Your task to perform on an android device: What's the weather going to be this weekend? Image 0: 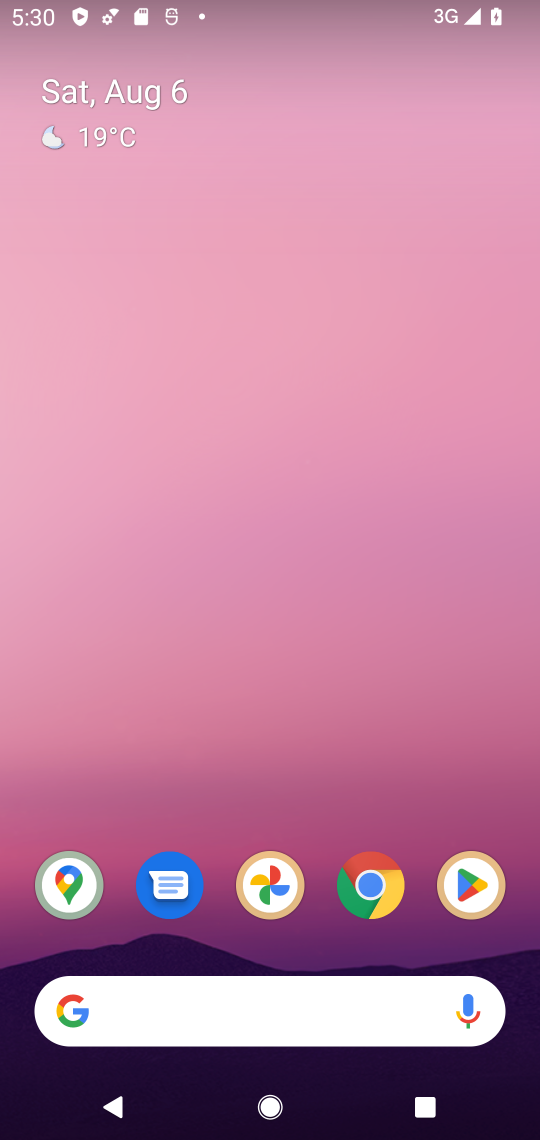
Step 0: drag from (393, 817) to (154, 84)
Your task to perform on an android device: What's the weather going to be this weekend? Image 1: 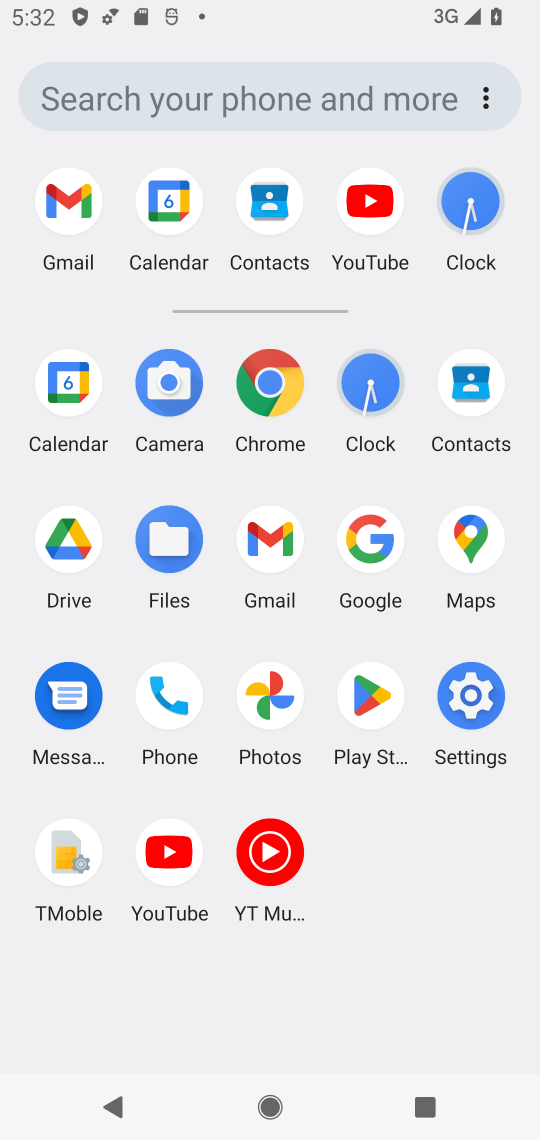
Step 1: click (360, 526)
Your task to perform on an android device: What's the weather going to be this weekend? Image 2: 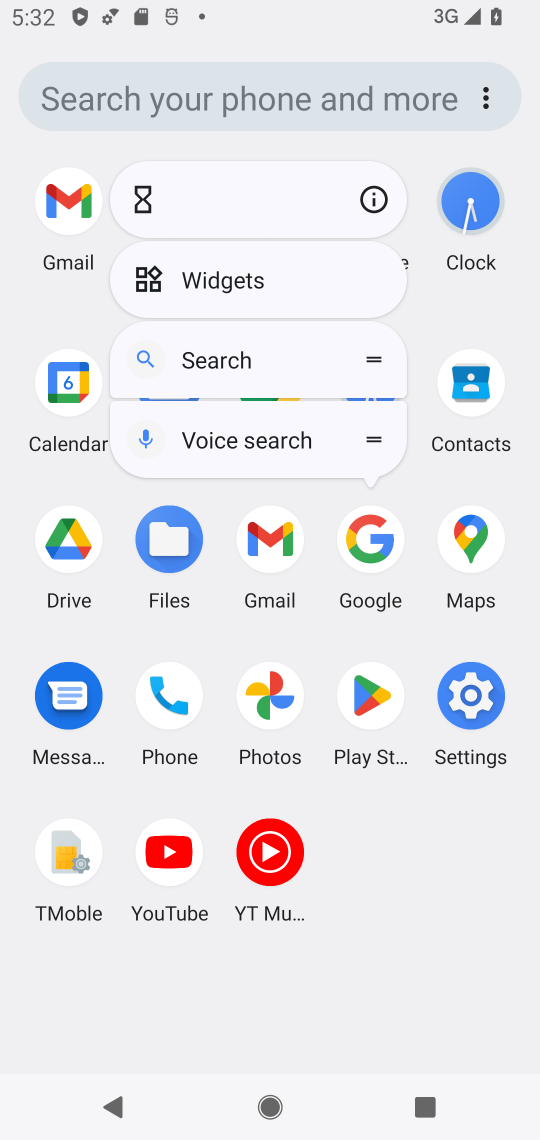
Step 2: click (360, 526)
Your task to perform on an android device: What's the weather going to be this weekend? Image 3: 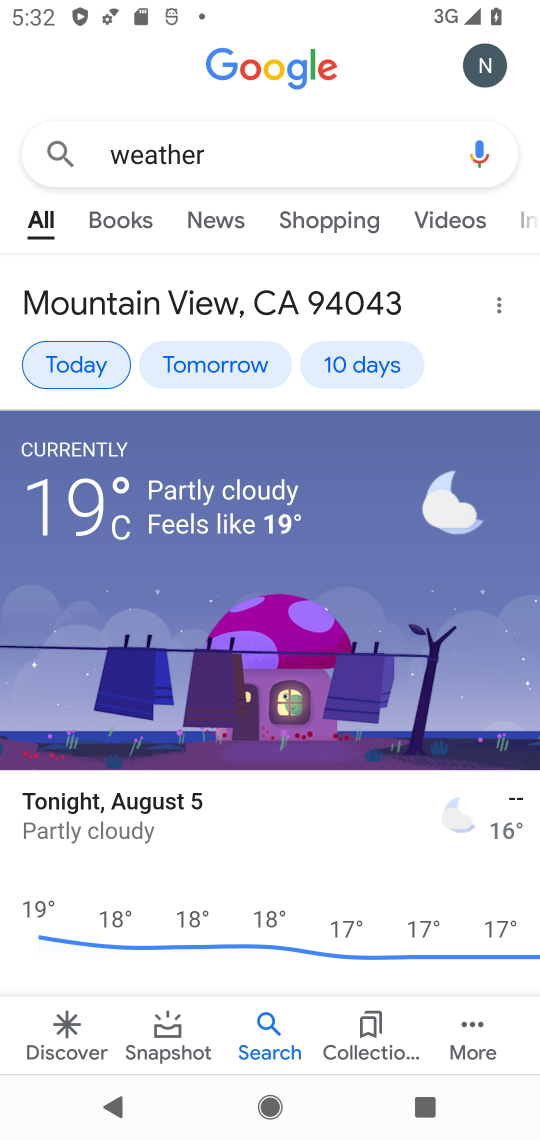
Step 3: press back button
Your task to perform on an android device: What's the weather going to be this weekend? Image 4: 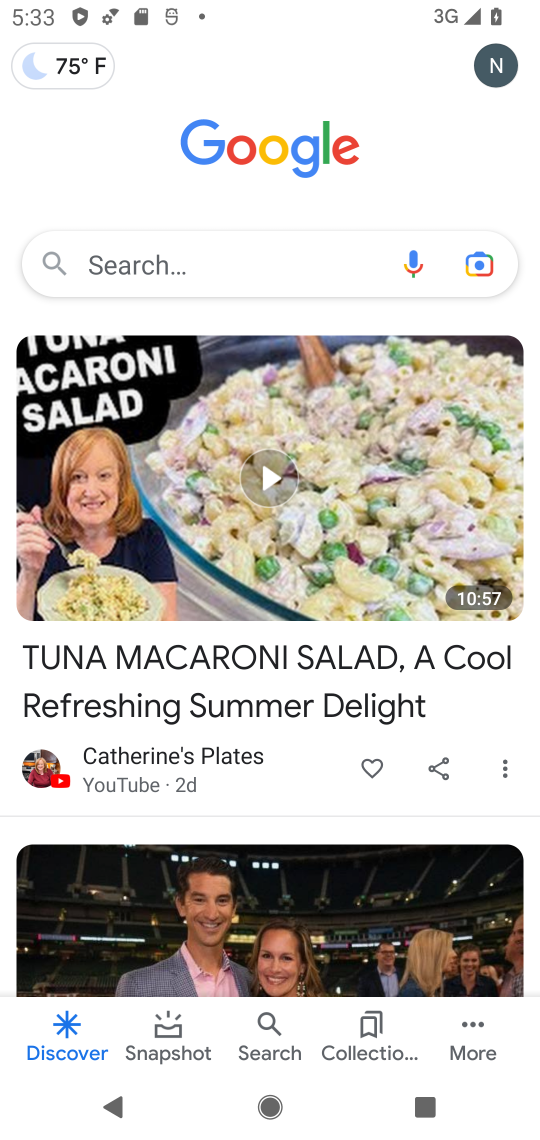
Step 4: click (187, 240)
Your task to perform on an android device: What's the weather going to be this weekend? Image 5: 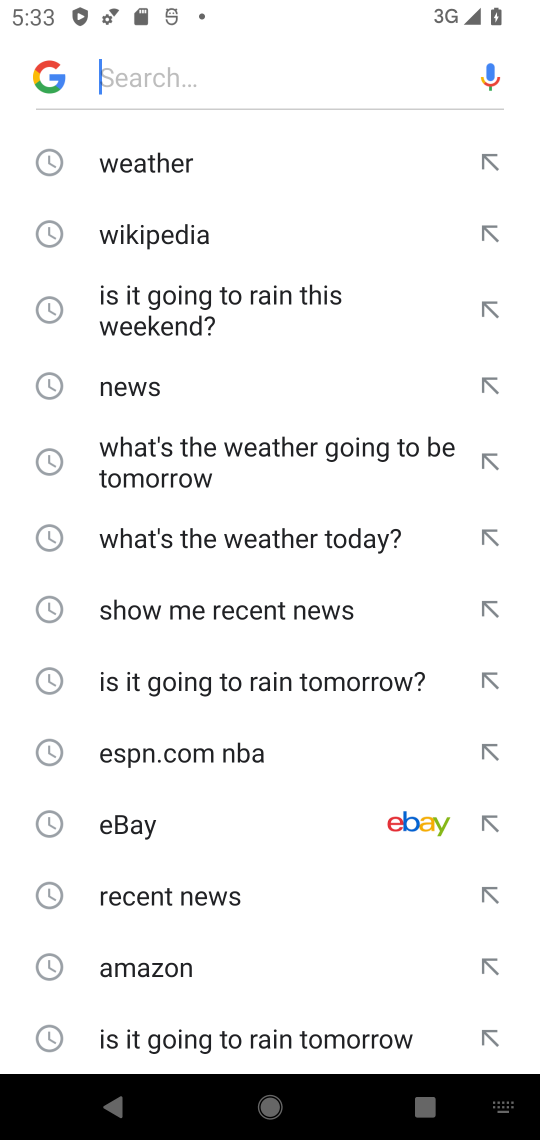
Step 5: drag from (263, 1033) to (285, 259)
Your task to perform on an android device: What's the weather going to be this weekend? Image 6: 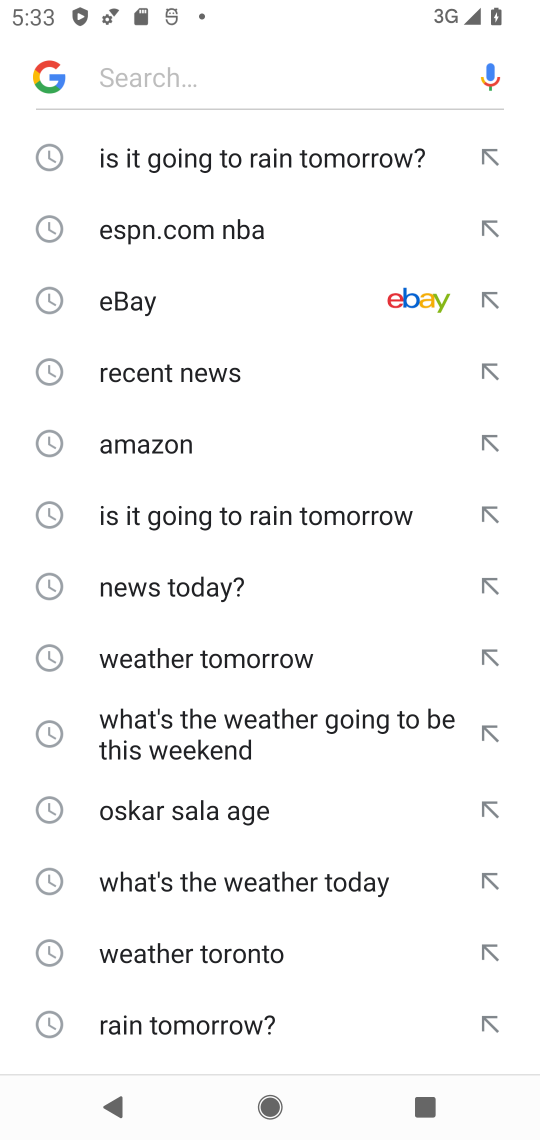
Step 6: click (232, 741)
Your task to perform on an android device: What's the weather going to be this weekend? Image 7: 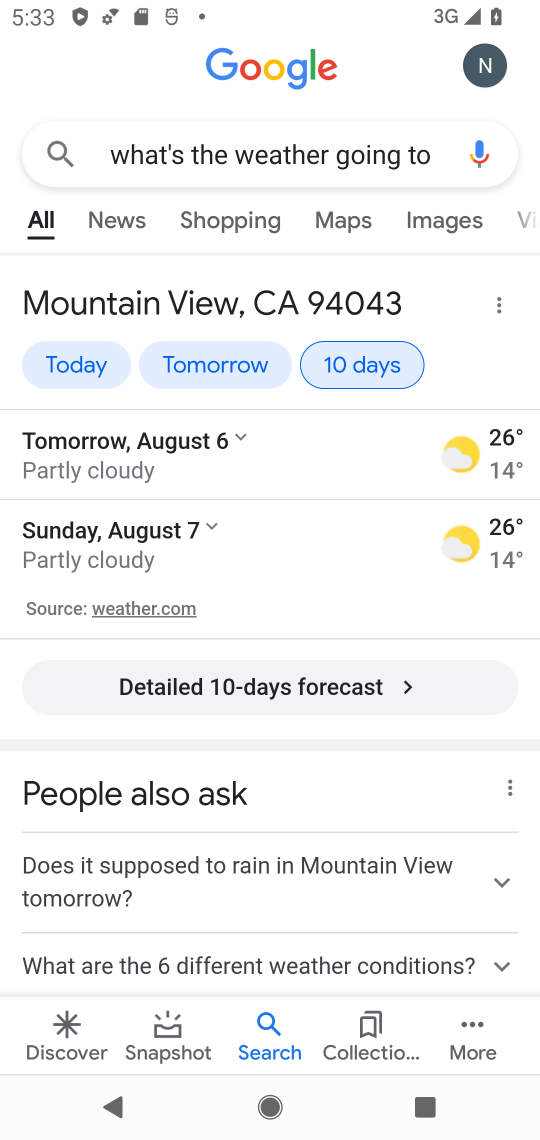
Step 7: task complete